Your task to perform on an android device: Go to settings Image 0: 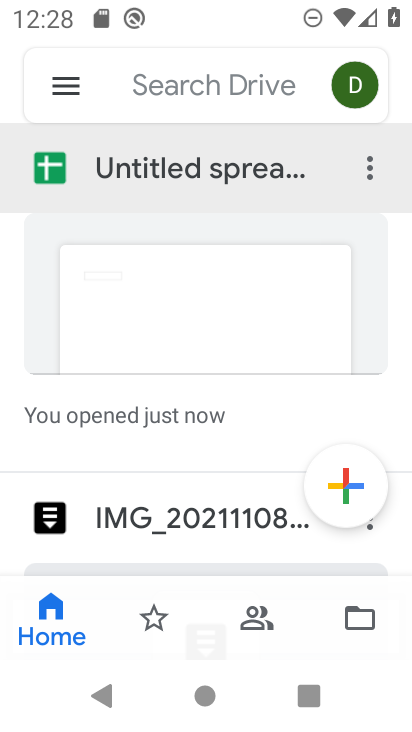
Step 0: press home button
Your task to perform on an android device: Go to settings Image 1: 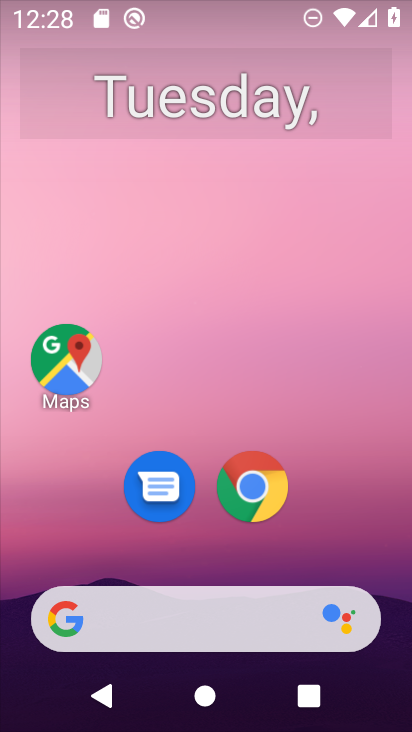
Step 1: drag from (265, 570) to (290, 182)
Your task to perform on an android device: Go to settings Image 2: 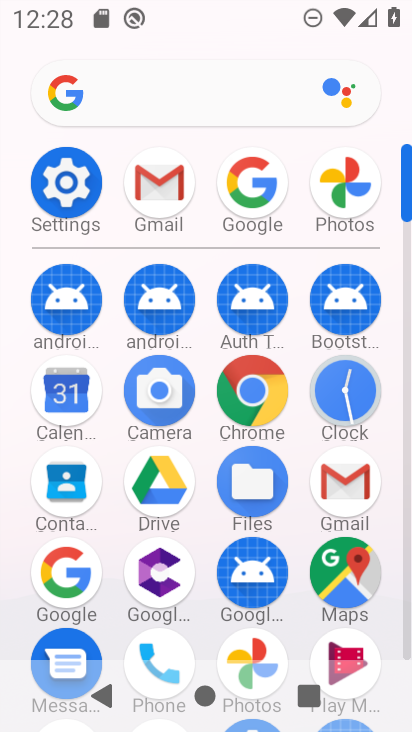
Step 2: drag from (202, 266) to (203, 22)
Your task to perform on an android device: Go to settings Image 3: 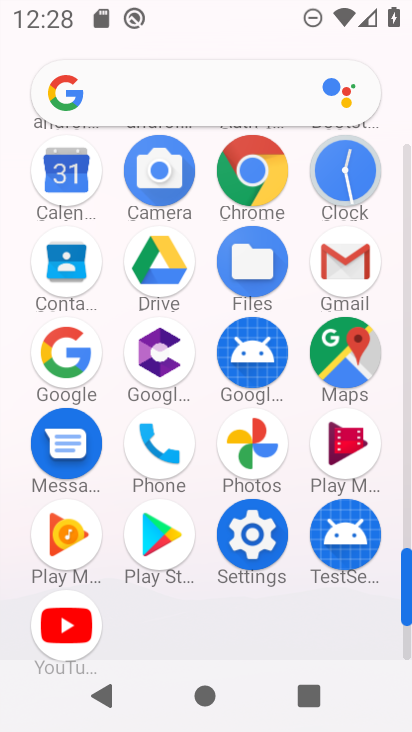
Step 3: click (248, 550)
Your task to perform on an android device: Go to settings Image 4: 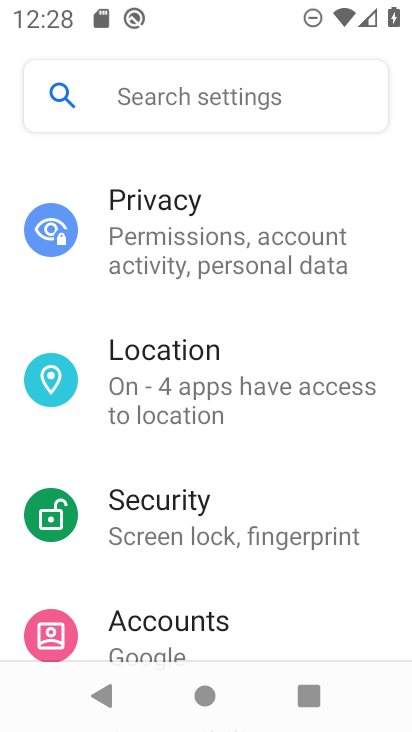
Step 4: task complete